Your task to perform on an android device: find snoozed emails in the gmail app Image 0: 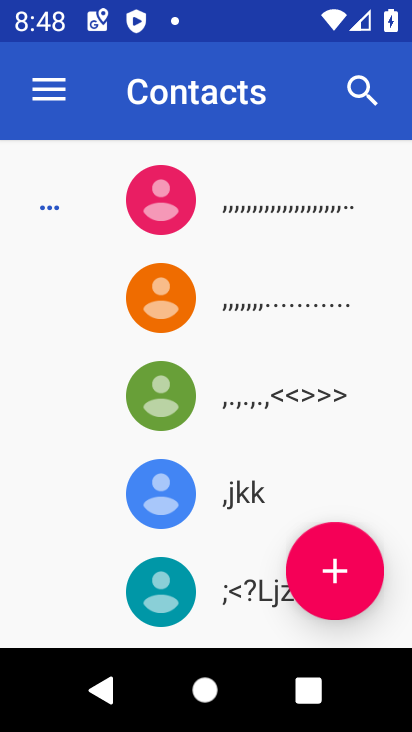
Step 0: press home button
Your task to perform on an android device: find snoozed emails in the gmail app Image 1: 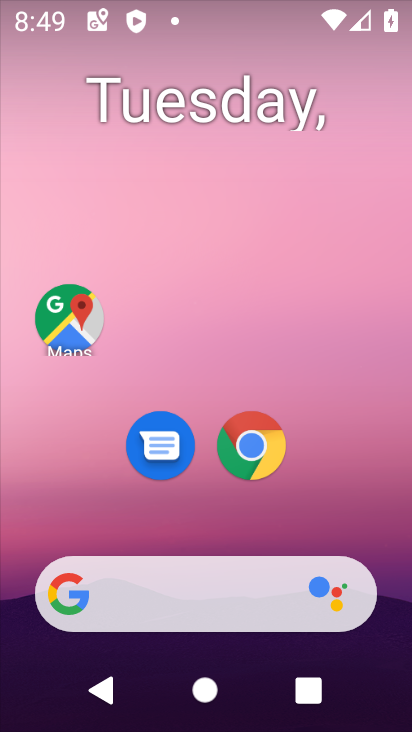
Step 1: drag from (61, 593) to (293, 244)
Your task to perform on an android device: find snoozed emails in the gmail app Image 2: 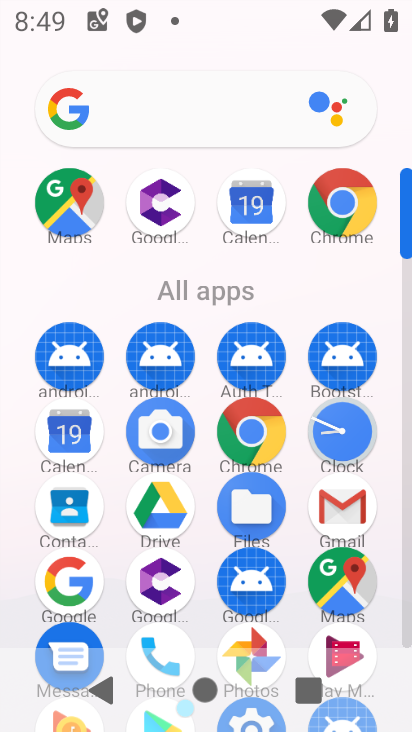
Step 2: click (337, 506)
Your task to perform on an android device: find snoozed emails in the gmail app Image 3: 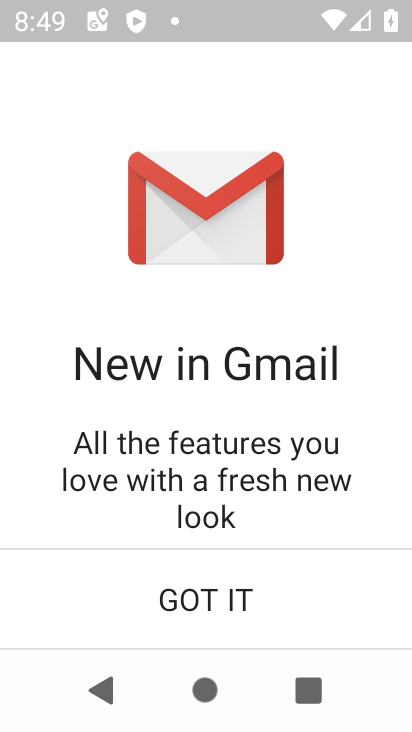
Step 3: click (225, 593)
Your task to perform on an android device: find snoozed emails in the gmail app Image 4: 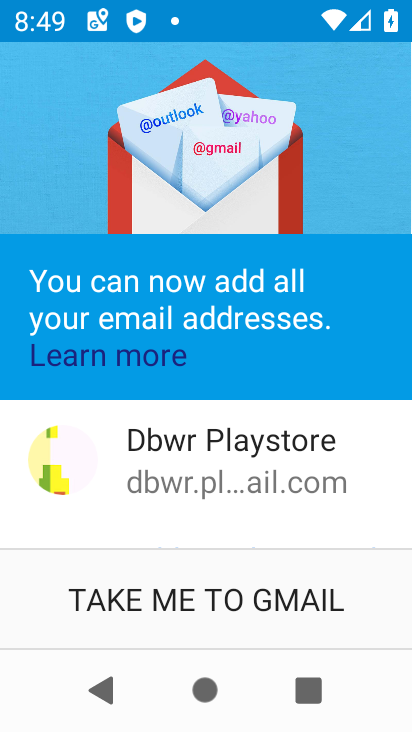
Step 4: click (182, 595)
Your task to perform on an android device: find snoozed emails in the gmail app Image 5: 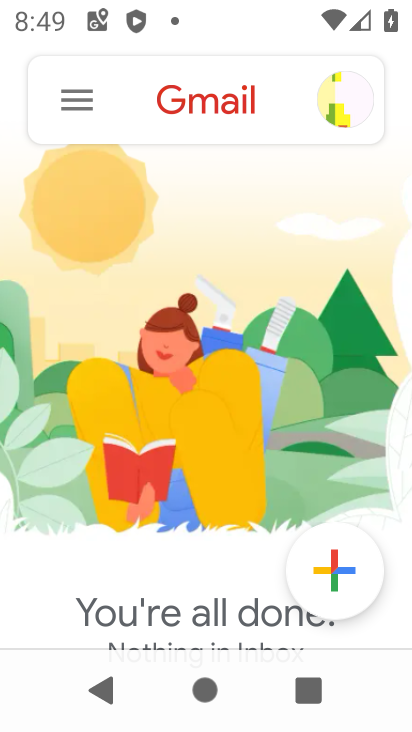
Step 5: click (71, 103)
Your task to perform on an android device: find snoozed emails in the gmail app Image 6: 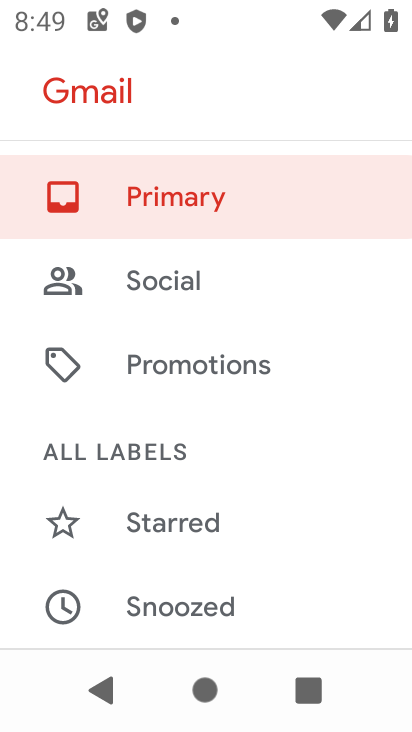
Step 6: click (76, 612)
Your task to perform on an android device: find snoozed emails in the gmail app Image 7: 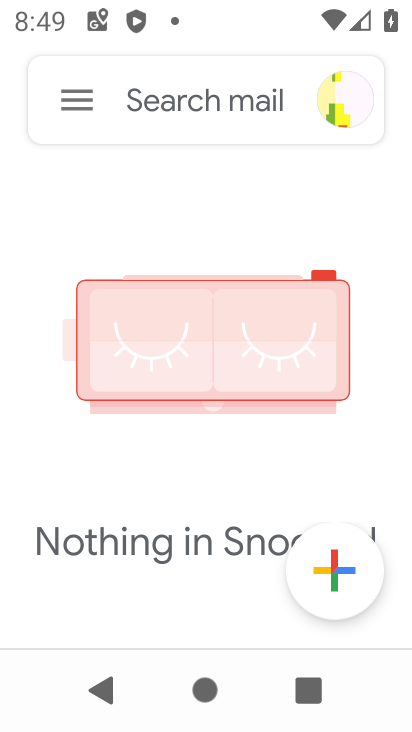
Step 7: task complete